Your task to perform on an android device: Open display settings Image 0: 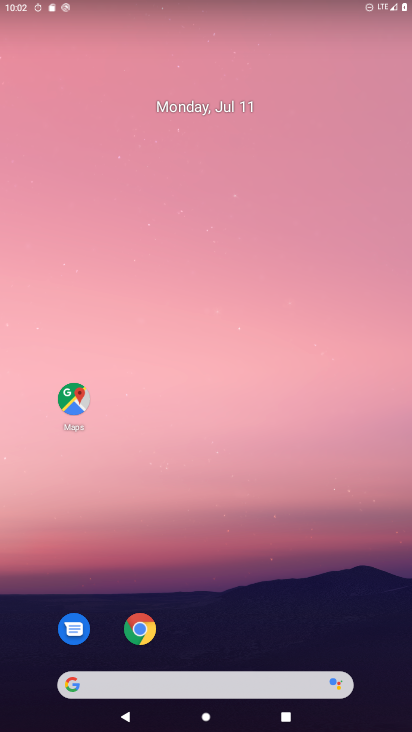
Step 0: drag from (194, 659) to (246, 8)
Your task to perform on an android device: Open display settings Image 1: 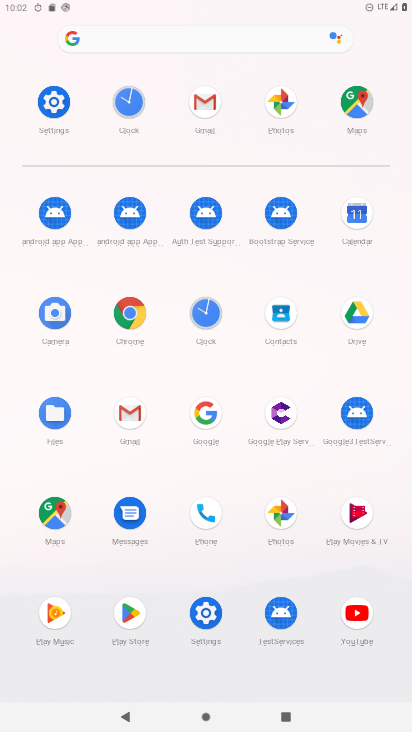
Step 1: click (199, 613)
Your task to perform on an android device: Open display settings Image 2: 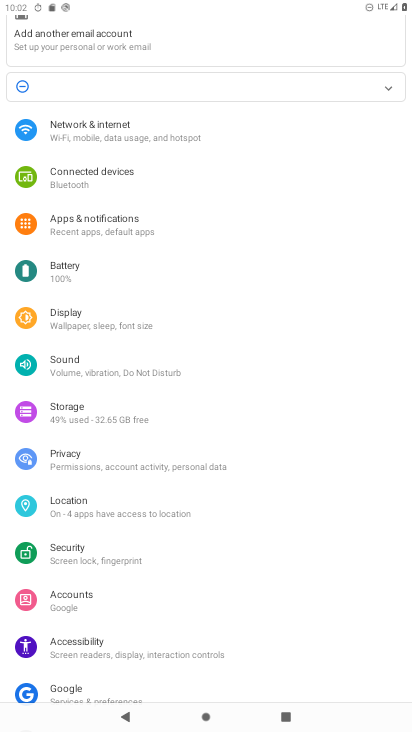
Step 2: click (126, 322)
Your task to perform on an android device: Open display settings Image 3: 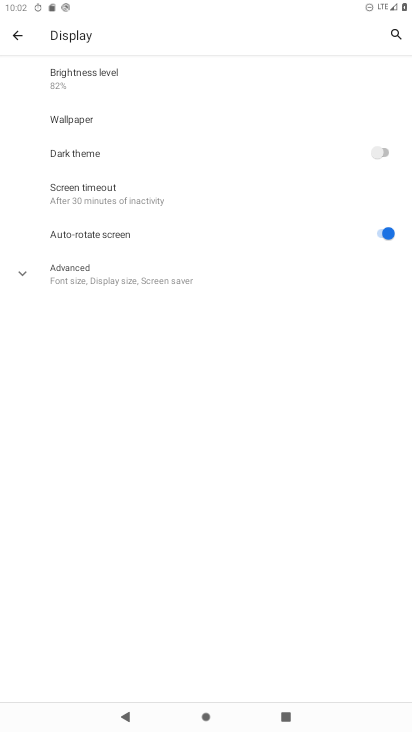
Step 3: task complete